Your task to perform on an android device: Open Yahoo.com Image 0: 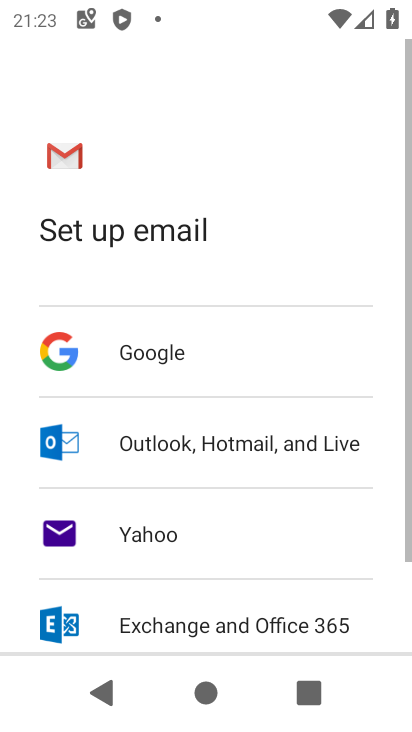
Step 0: press home button
Your task to perform on an android device: Open Yahoo.com Image 1: 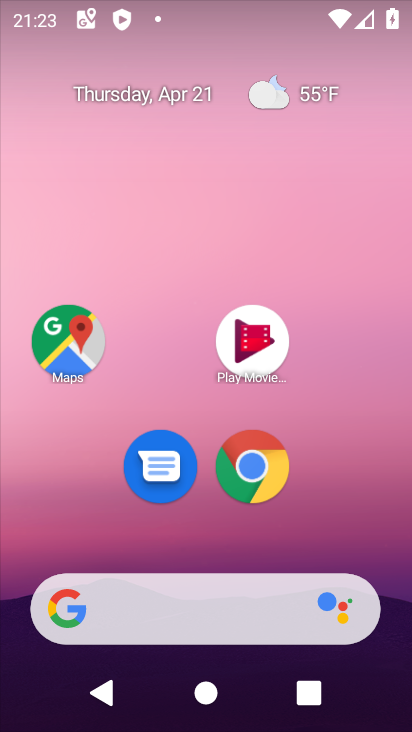
Step 1: drag from (296, 532) to (330, 97)
Your task to perform on an android device: Open Yahoo.com Image 2: 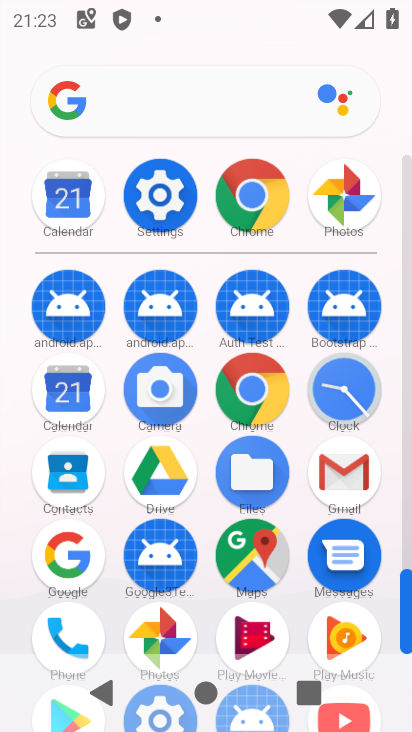
Step 2: drag from (295, 659) to (320, 366)
Your task to perform on an android device: Open Yahoo.com Image 3: 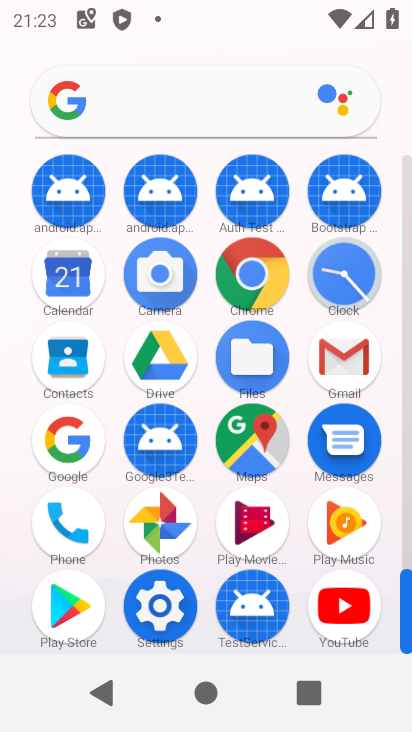
Step 3: click (259, 286)
Your task to perform on an android device: Open Yahoo.com Image 4: 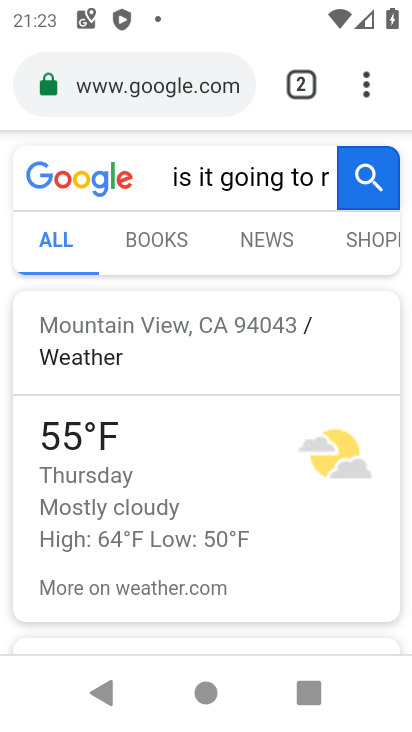
Step 4: click (133, 80)
Your task to perform on an android device: Open Yahoo.com Image 5: 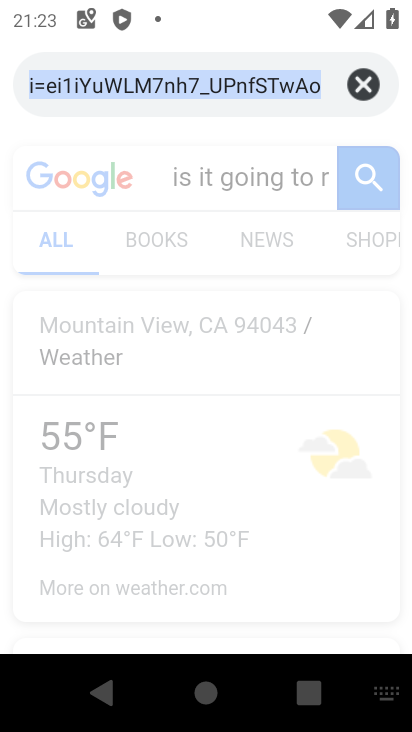
Step 5: type "yahoo.com"
Your task to perform on an android device: Open Yahoo.com Image 6: 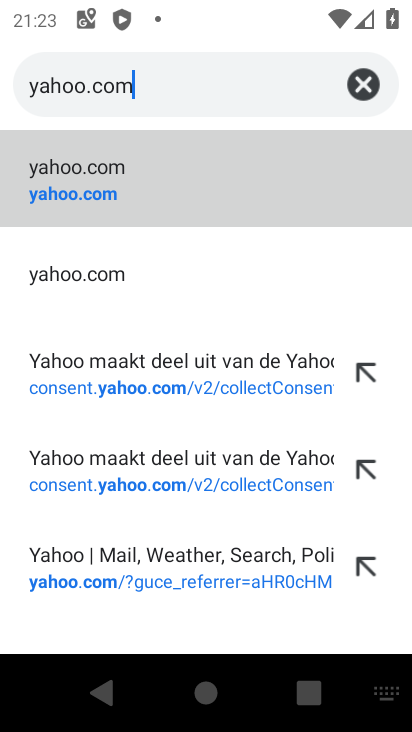
Step 6: click (75, 190)
Your task to perform on an android device: Open Yahoo.com Image 7: 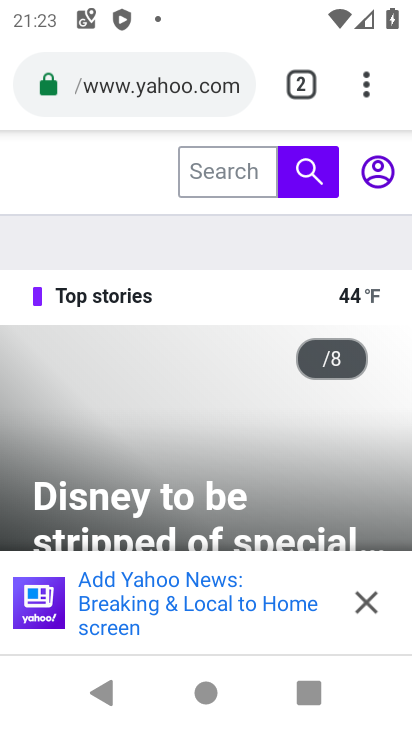
Step 7: task complete